Your task to perform on an android device: Search for pizza restaurants on Maps Image 0: 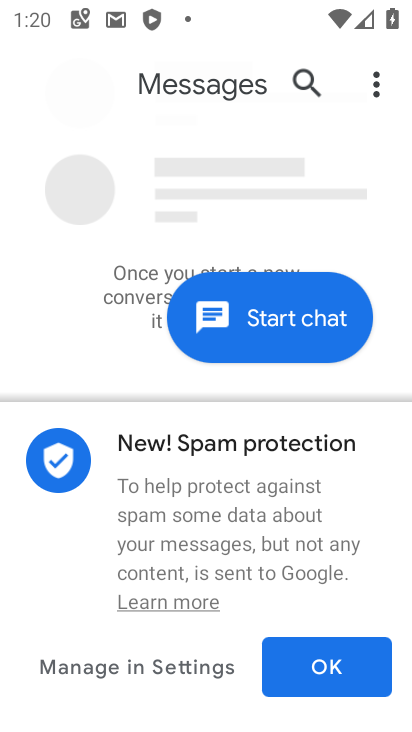
Step 0: press home button
Your task to perform on an android device: Search for pizza restaurants on Maps Image 1: 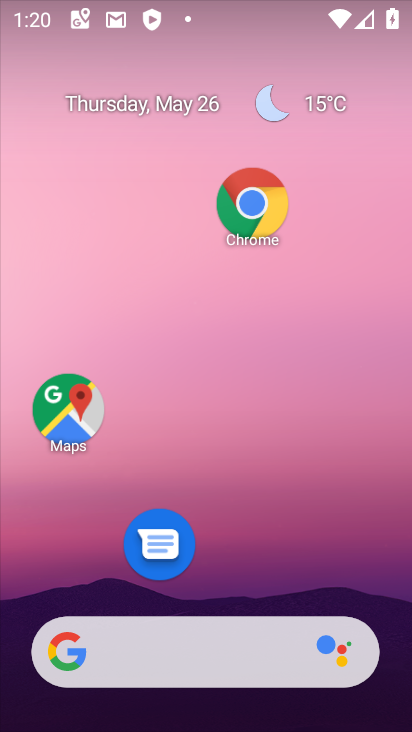
Step 1: click (71, 427)
Your task to perform on an android device: Search for pizza restaurants on Maps Image 2: 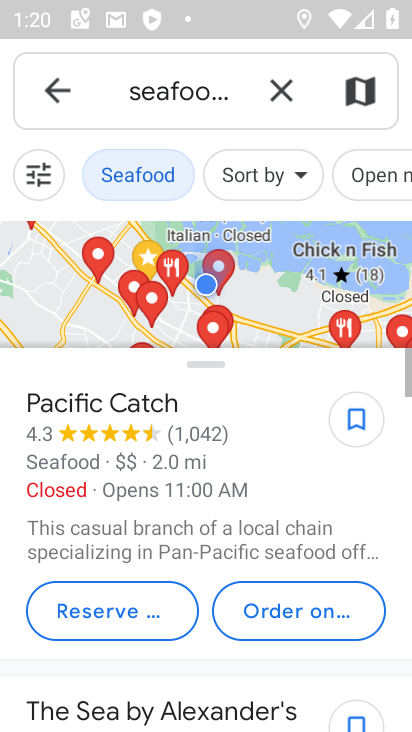
Step 2: click (280, 90)
Your task to perform on an android device: Search for pizza restaurants on Maps Image 3: 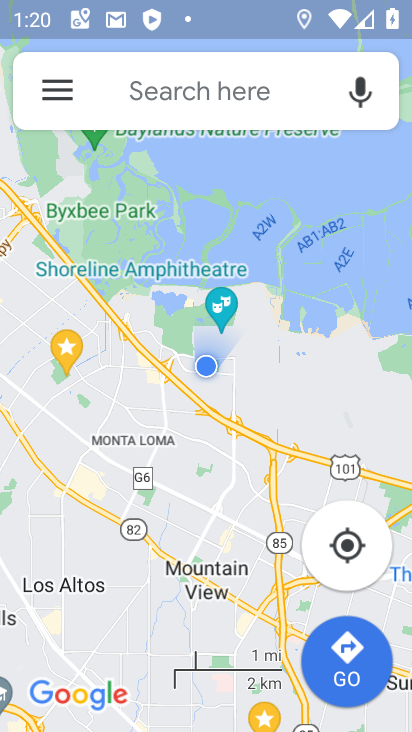
Step 3: click (236, 91)
Your task to perform on an android device: Search for pizza restaurants on Maps Image 4: 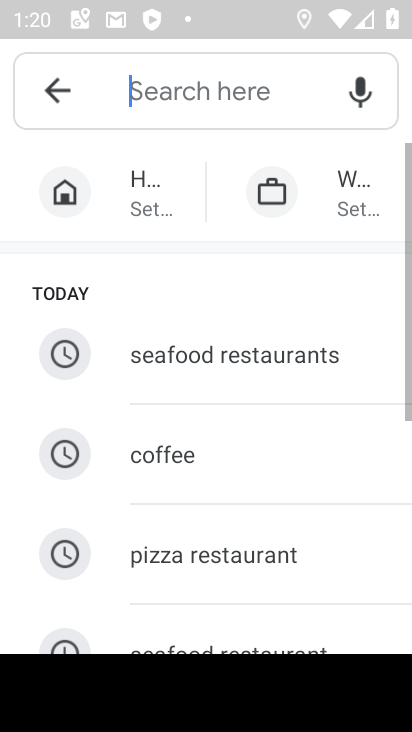
Step 4: click (247, 549)
Your task to perform on an android device: Search for pizza restaurants on Maps Image 5: 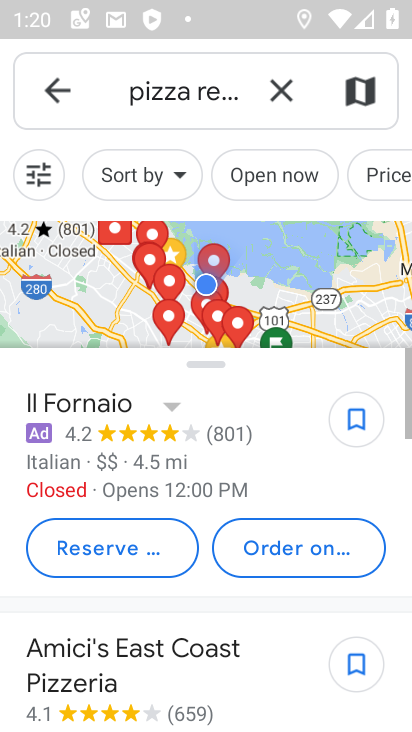
Step 5: task complete